Your task to perform on an android device: What's the weather? Image 0: 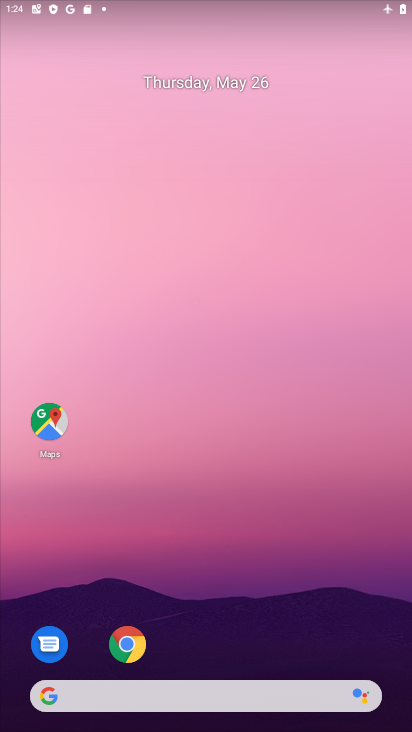
Step 0: click (121, 634)
Your task to perform on an android device: What's the weather? Image 1: 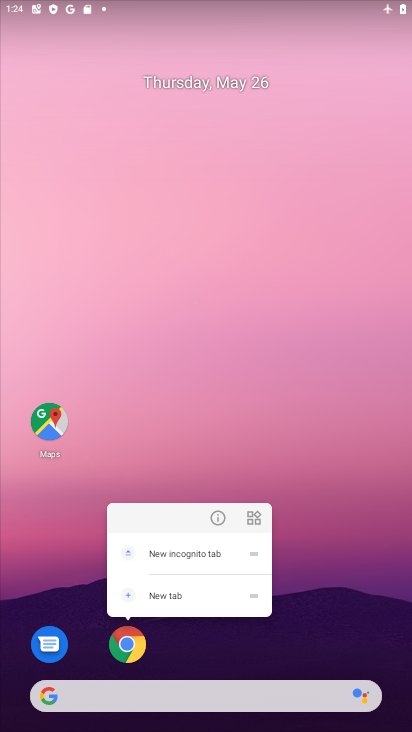
Step 1: click (129, 637)
Your task to perform on an android device: What's the weather? Image 2: 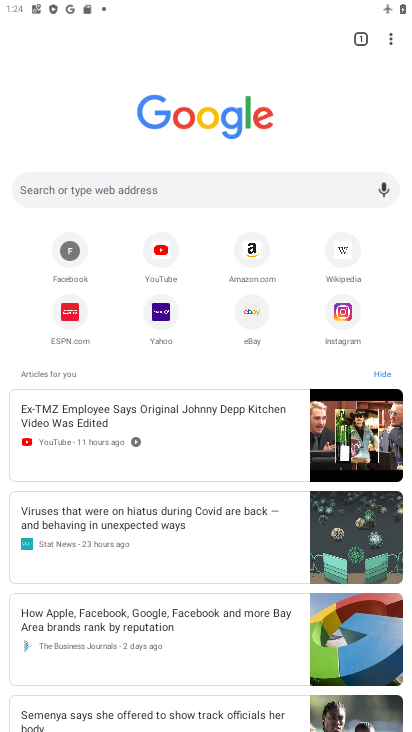
Step 2: click (113, 182)
Your task to perform on an android device: What's the weather? Image 3: 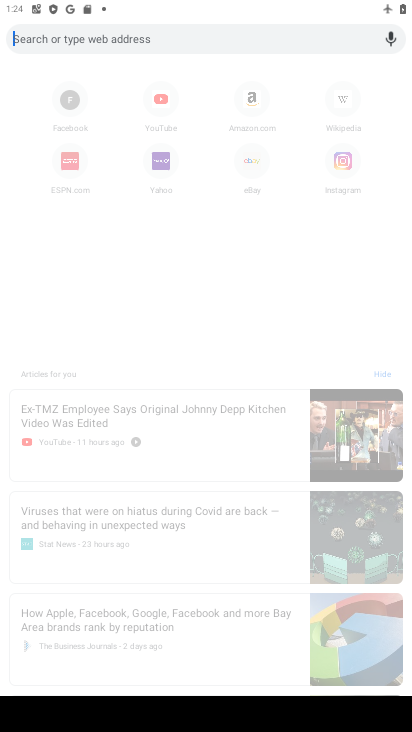
Step 3: type "What's the weather?"
Your task to perform on an android device: What's the weather? Image 4: 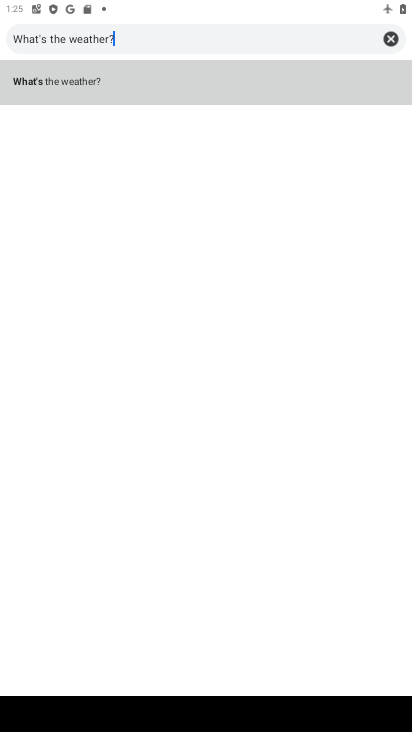
Step 4: click (272, 72)
Your task to perform on an android device: What's the weather? Image 5: 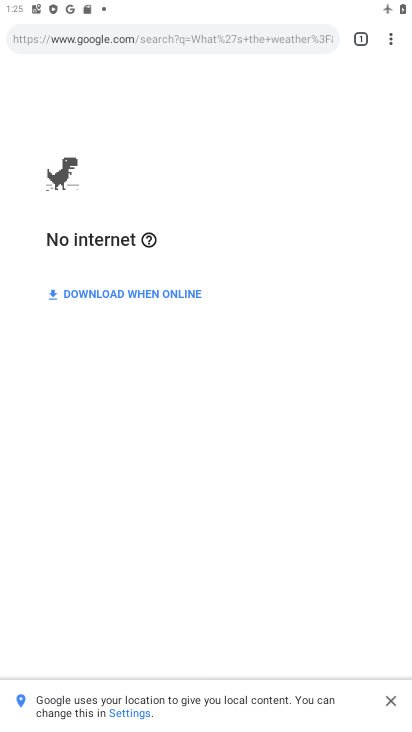
Step 5: task complete